Your task to perform on an android device: What does the iPhone 8 look like on eBay? Image 0: 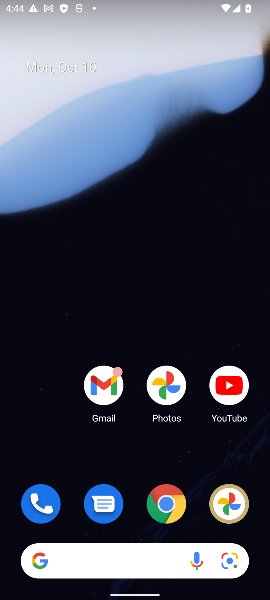
Step 0: drag from (181, 488) to (81, 203)
Your task to perform on an android device: What does the iPhone 8 look like on eBay? Image 1: 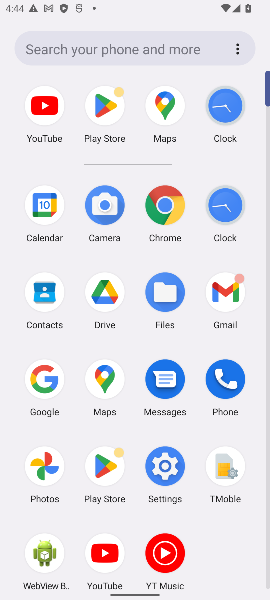
Step 1: click (156, 206)
Your task to perform on an android device: What does the iPhone 8 look like on eBay? Image 2: 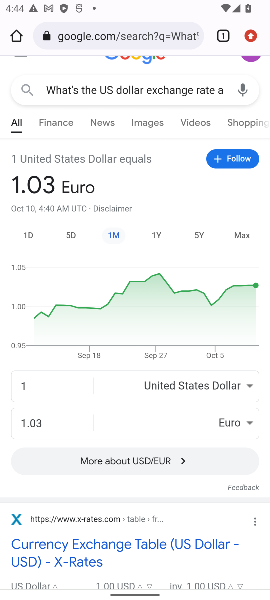
Step 2: click (102, 34)
Your task to perform on an android device: What does the iPhone 8 look like on eBay? Image 3: 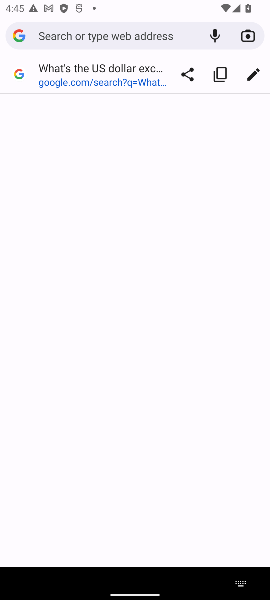
Step 3: type "What does the iPhone 8 look like on eBay?"
Your task to perform on an android device: What does the iPhone 8 look like on eBay? Image 4: 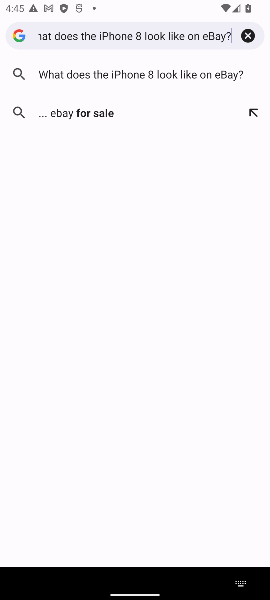
Step 4: press enter
Your task to perform on an android device: What does the iPhone 8 look like on eBay? Image 5: 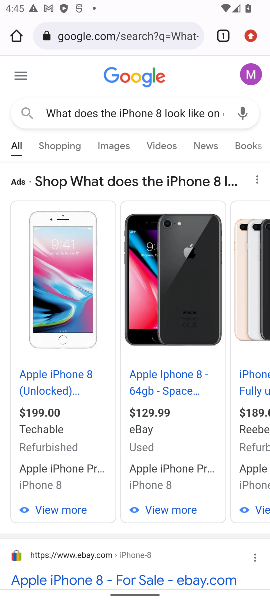
Step 5: drag from (198, 419) to (214, 172)
Your task to perform on an android device: What does the iPhone 8 look like on eBay? Image 6: 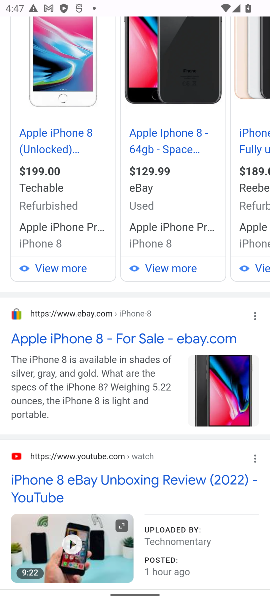
Step 6: press home button
Your task to perform on an android device: What does the iPhone 8 look like on eBay? Image 7: 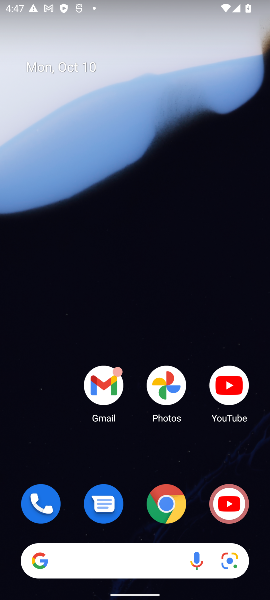
Step 7: drag from (95, 539) to (117, 13)
Your task to perform on an android device: What does the iPhone 8 look like on eBay? Image 8: 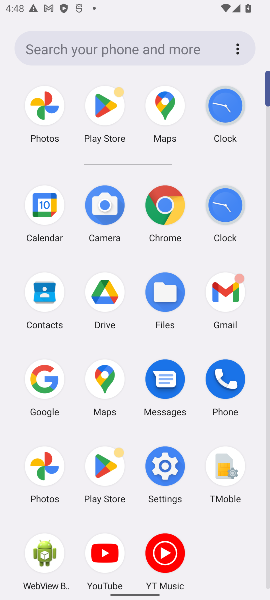
Step 8: click (172, 209)
Your task to perform on an android device: What does the iPhone 8 look like on eBay? Image 9: 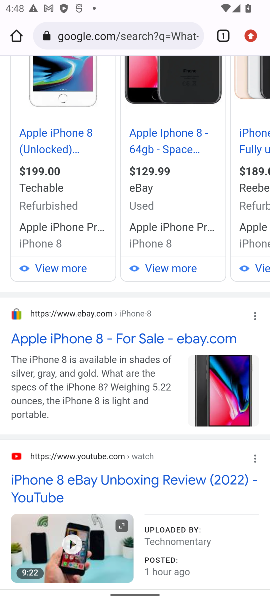
Step 9: click (130, 32)
Your task to perform on an android device: What does the iPhone 8 look like on eBay? Image 10: 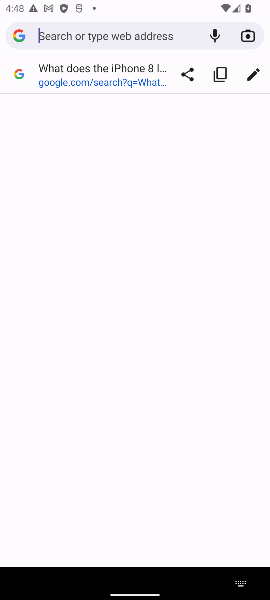
Step 10: type "What does the iPhone 8 look like on eBay?"
Your task to perform on an android device: What does the iPhone 8 look like on eBay? Image 11: 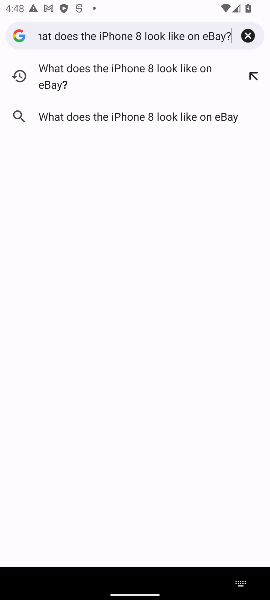
Step 11: press enter
Your task to perform on an android device: What does the iPhone 8 look like on eBay? Image 12: 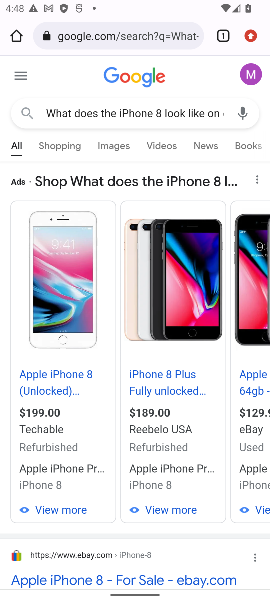
Step 12: task complete